Your task to perform on an android device: Go to eBay Image 0: 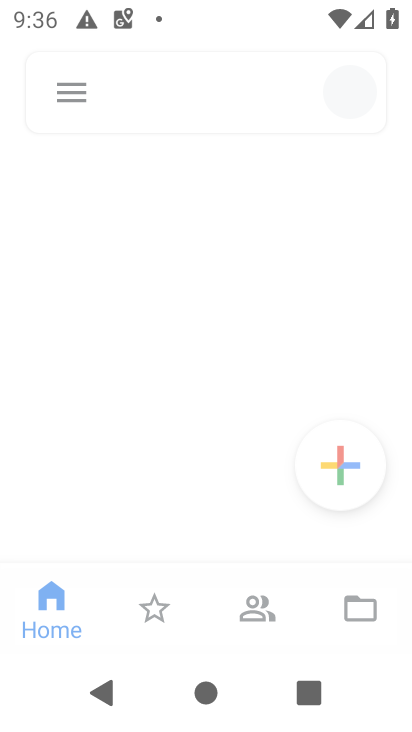
Step 0: press home button
Your task to perform on an android device: Go to eBay Image 1: 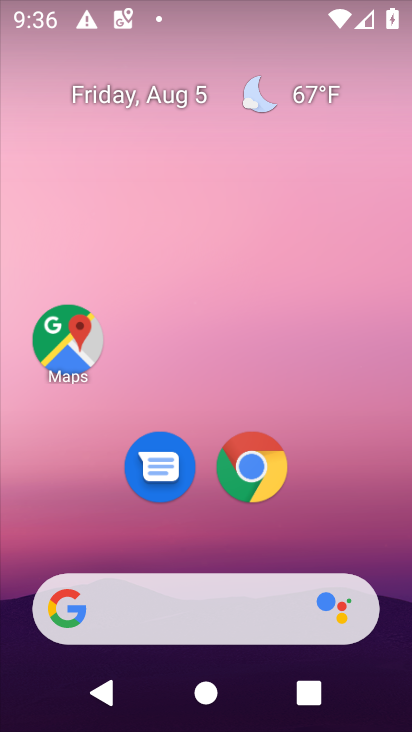
Step 1: drag from (214, 576) to (270, 54)
Your task to perform on an android device: Go to eBay Image 2: 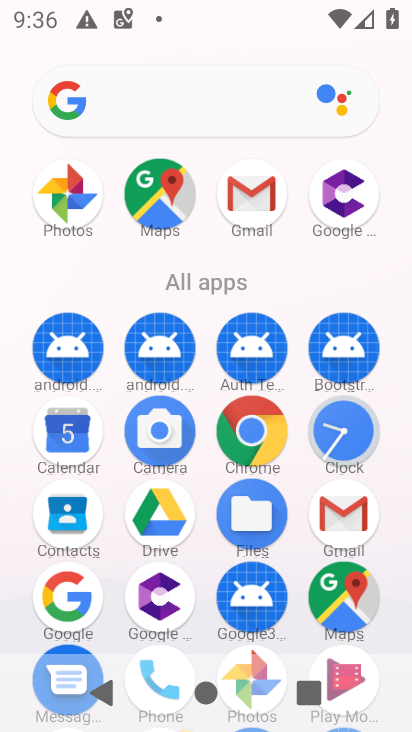
Step 2: click (253, 432)
Your task to perform on an android device: Go to eBay Image 3: 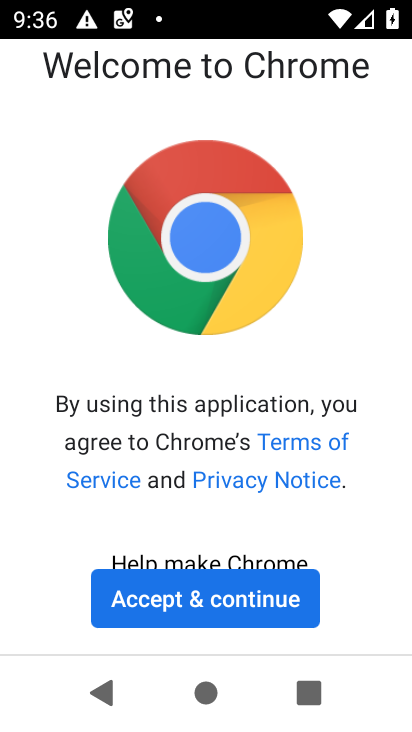
Step 3: click (236, 608)
Your task to perform on an android device: Go to eBay Image 4: 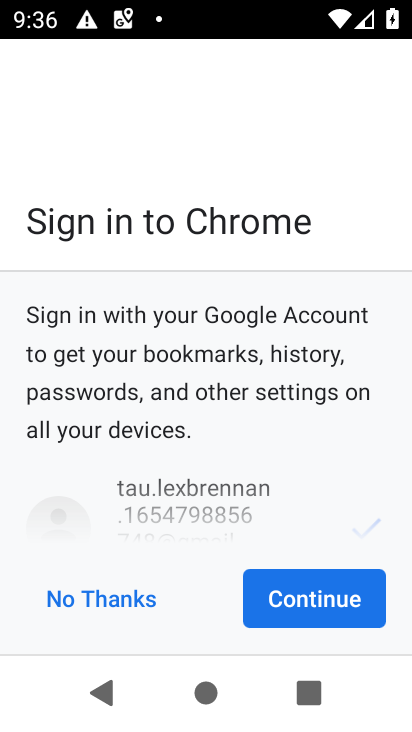
Step 4: click (313, 603)
Your task to perform on an android device: Go to eBay Image 5: 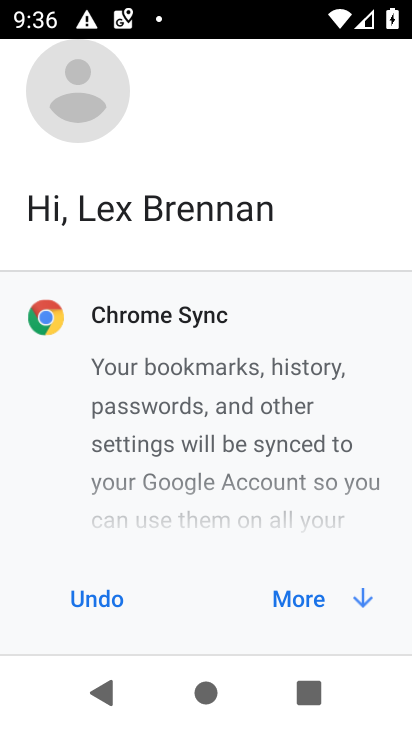
Step 5: click (313, 603)
Your task to perform on an android device: Go to eBay Image 6: 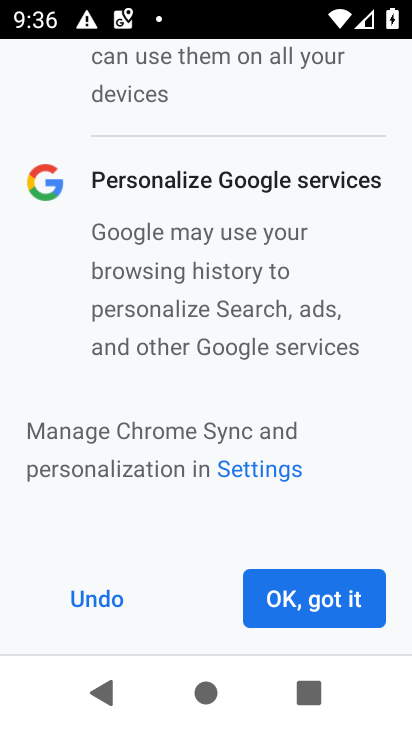
Step 6: click (313, 603)
Your task to perform on an android device: Go to eBay Image 7: 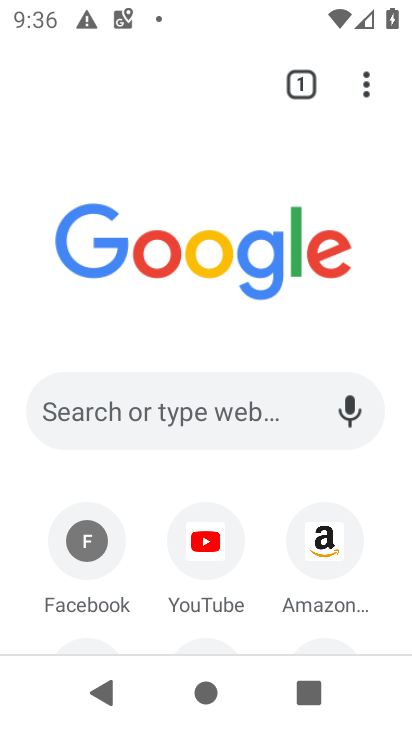
Step 7: drag from (255, 599) to (266, 206)
Your task to perform on an android device: Go to eBay Image 8: 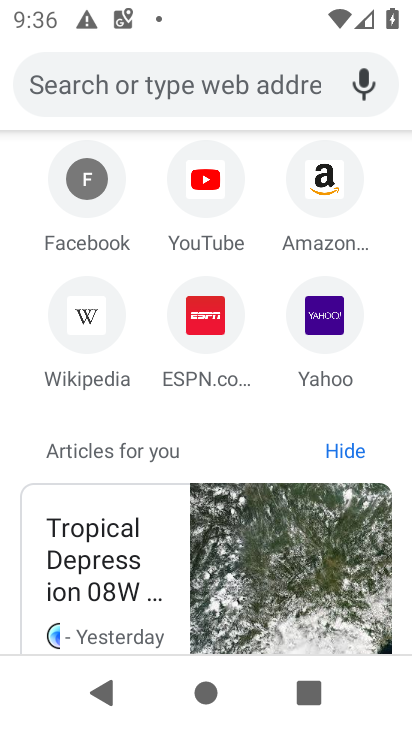
Step 8: click (159, 91)
Your task to perform on an android device: Go to eBay Image 9: 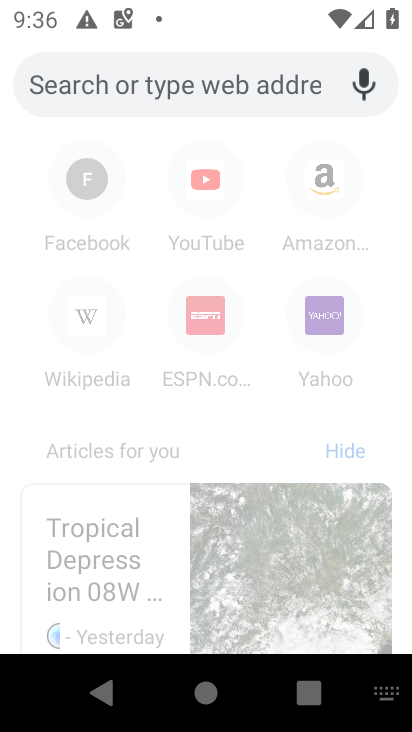
Step 9: type " eBay"
Your task to perform on an android device: Go to eBay Image 10: 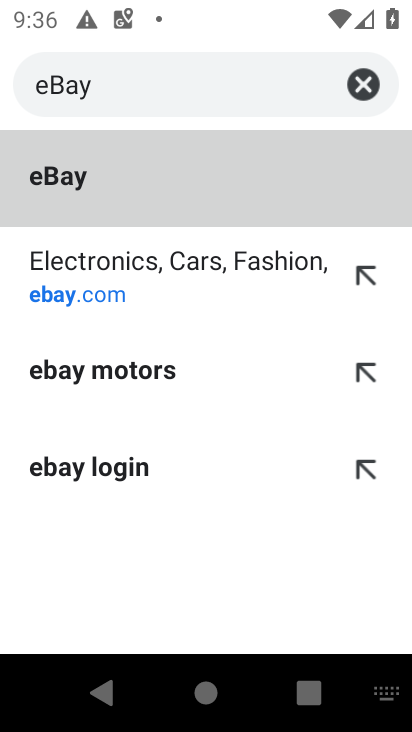
Step 10: click (68, 256)
Your task to perform on an android device: Go to eBay Image 11: 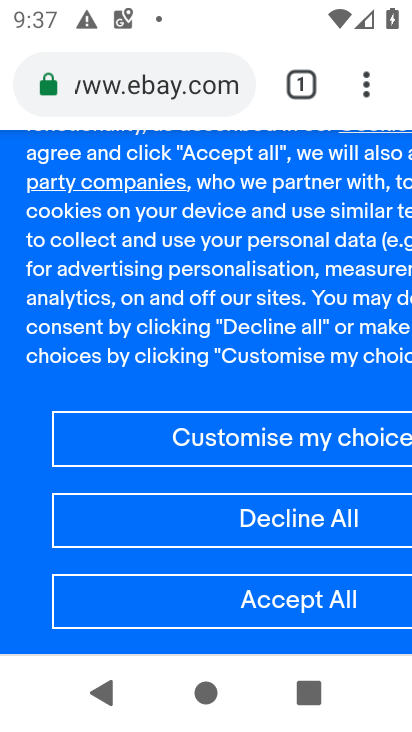
Step 11: task complete